Your task to perform on an android device: Clear the shopping cart on walmart. Add "energizer triple a" to the cart on walmart Image 0: 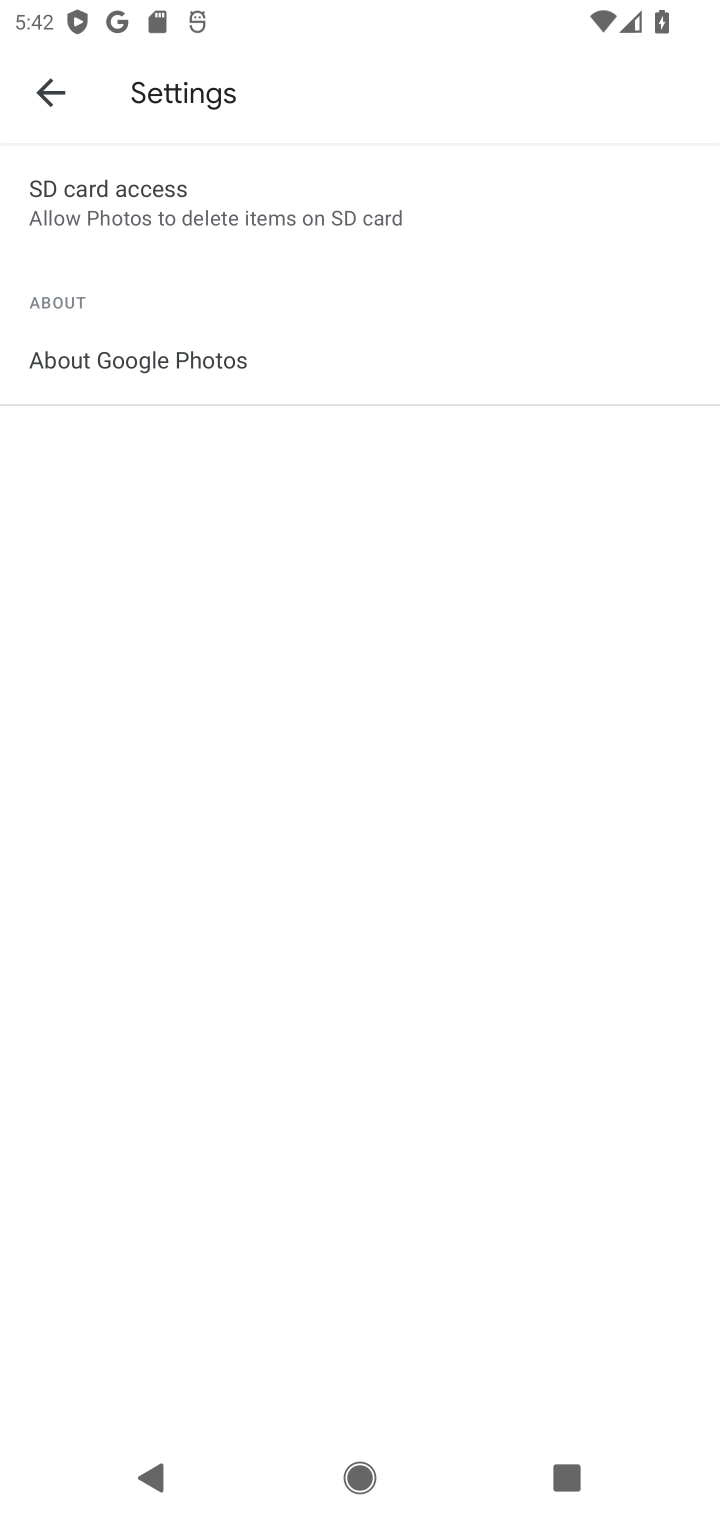
Step 0: press home button
Your task to perform on an android device: Clear the shopping cart on walmart. Add "energizer triple a" to the cart on walmart Image 1: 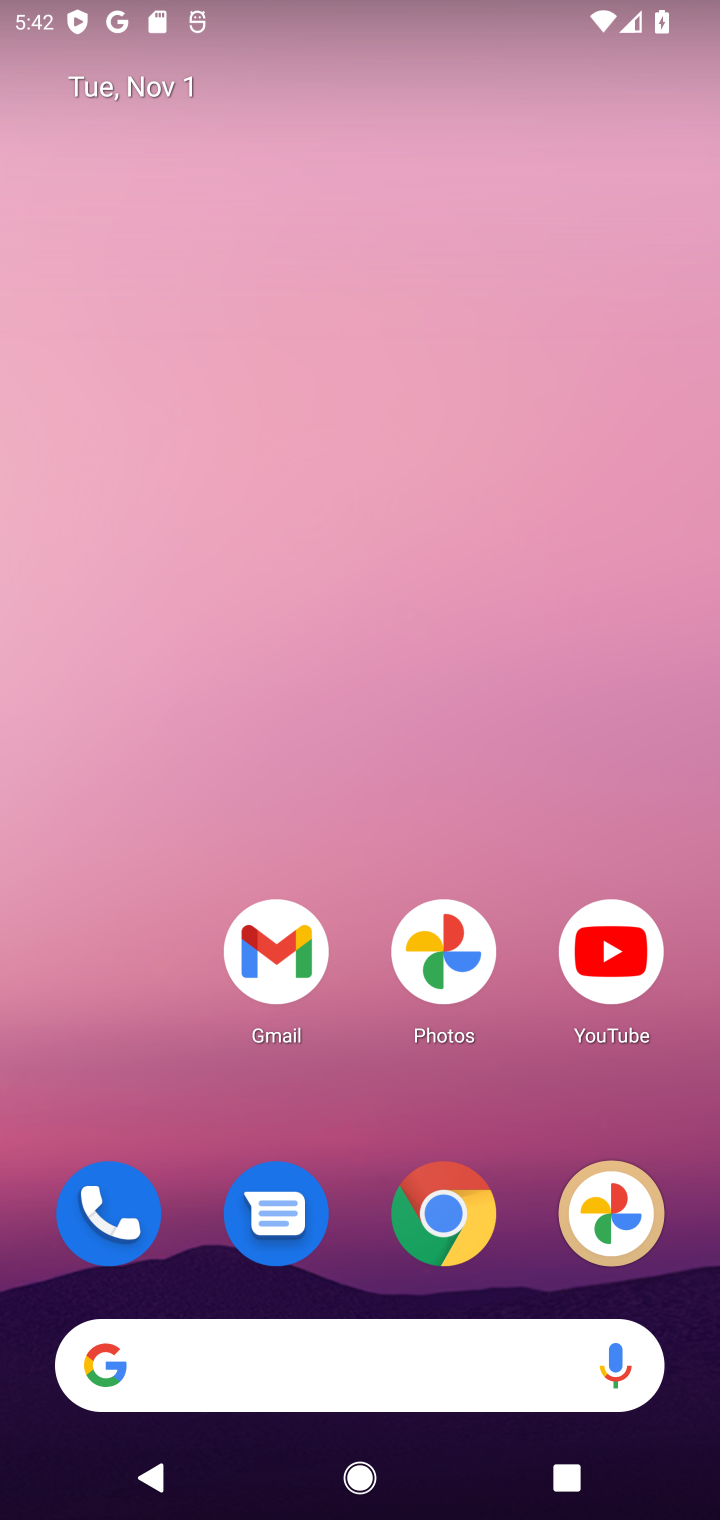
Step 1: click (431, 1204)
Your task to perform on an android device: Clear the shopping cart on walmart. Add "energizer triple a" to the cart on walmart Image 2: 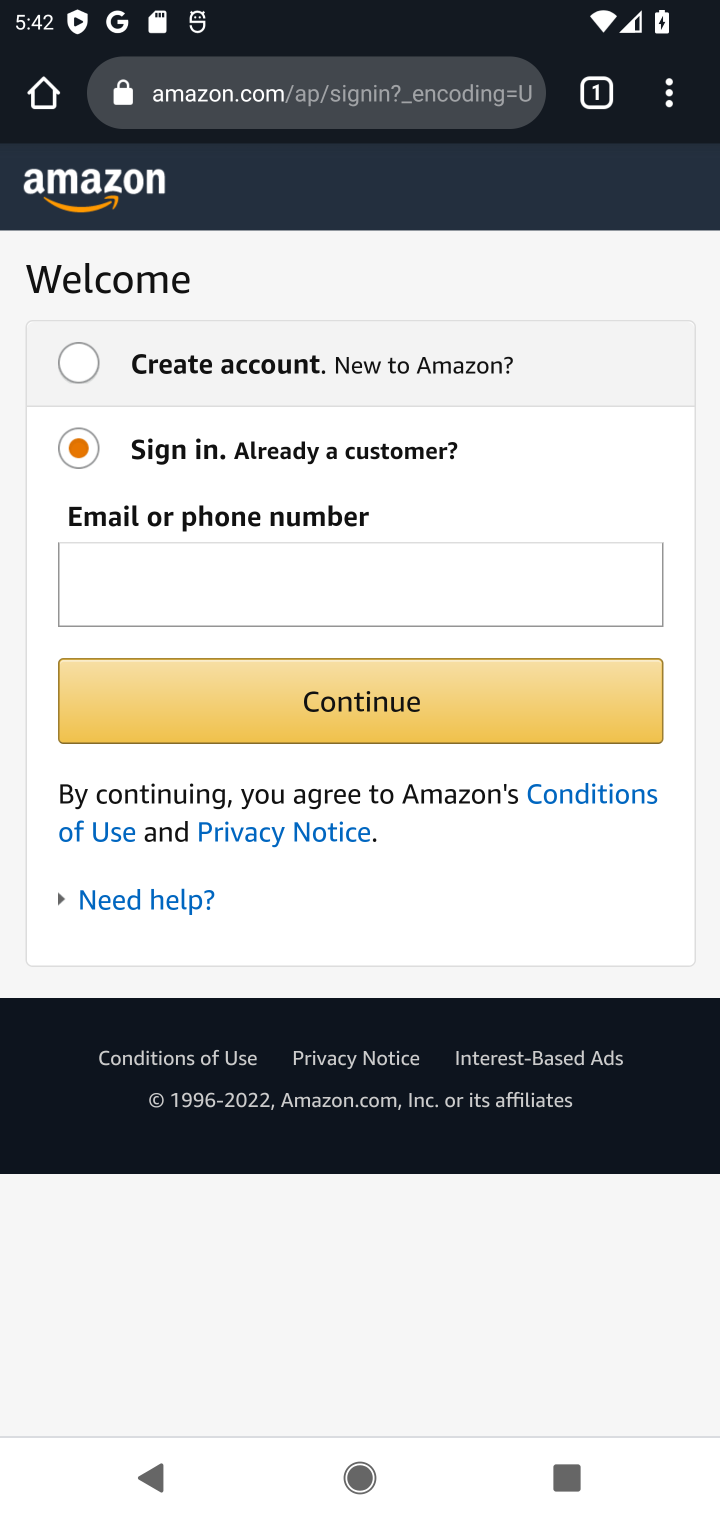
Step 2: click (242, 108)
Your task to perform on an android device: Clear the shopping cart on walmart. Add "energizer triple a" to the cart on walmart Image 3: 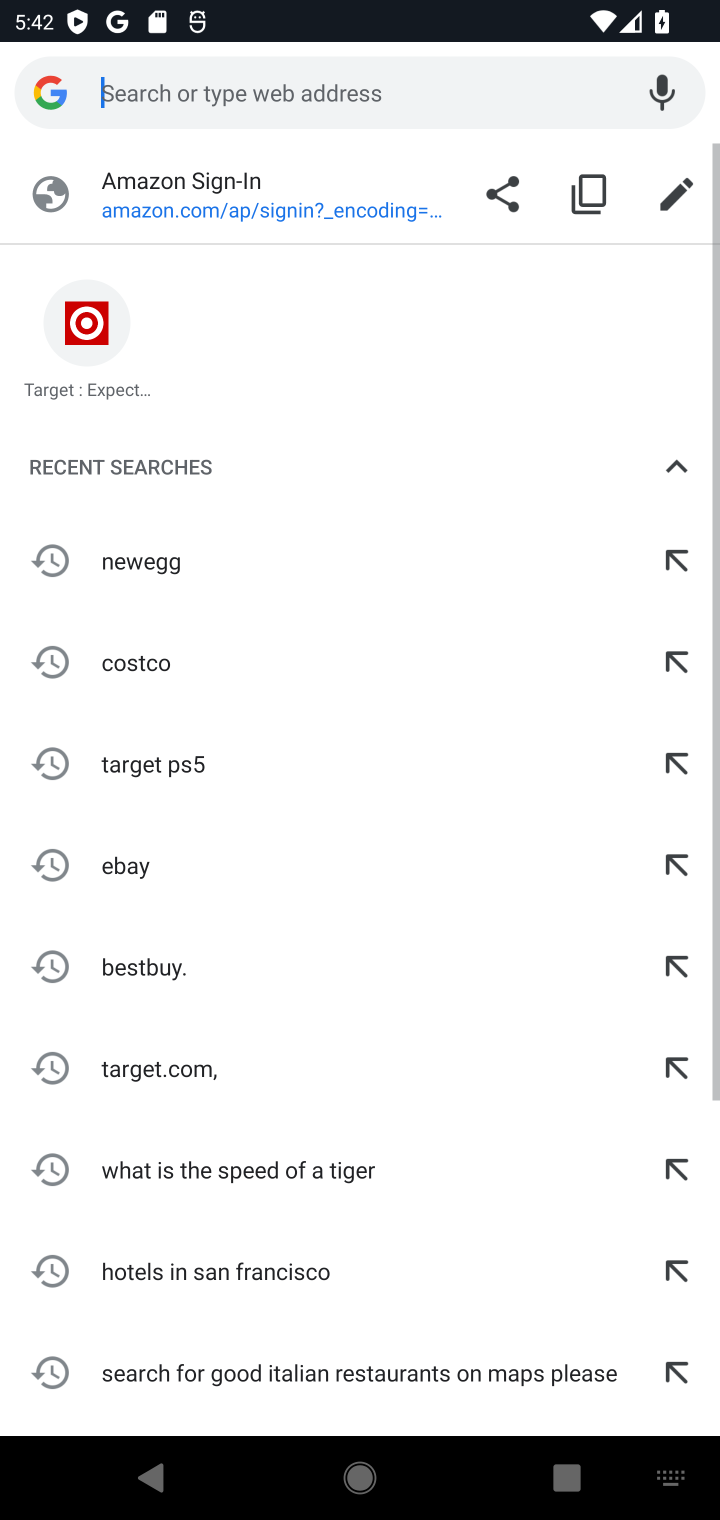
Step 3: type "walmart"
Your task to perform on an android device: Clear the shopping cart on walmart. Add "energizer triple a" to the cart on walmart Image 4: 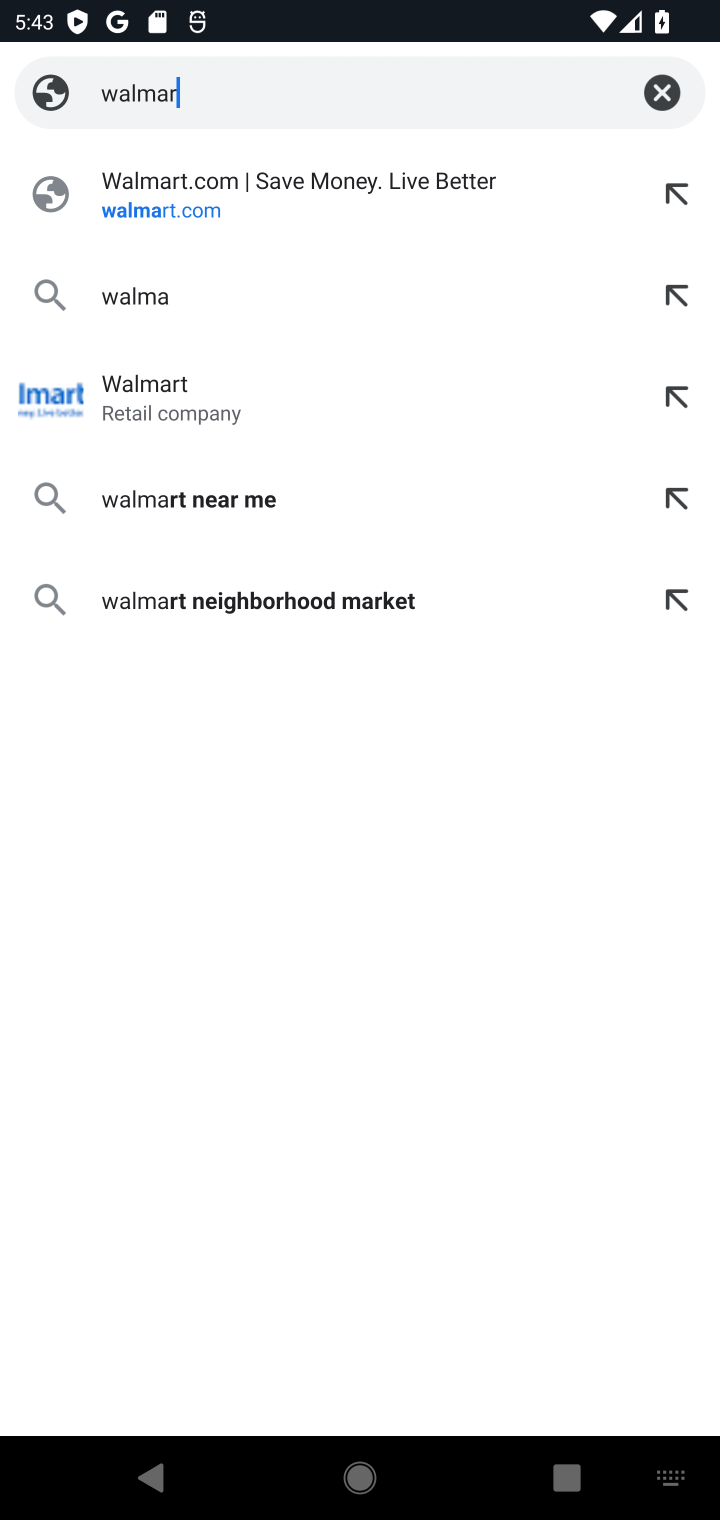
Step 4: type ""
Your task to perform on an android device: Clear the shopping cart on walmart. Add "energizer triple a" to the cart on walmart Image 5: 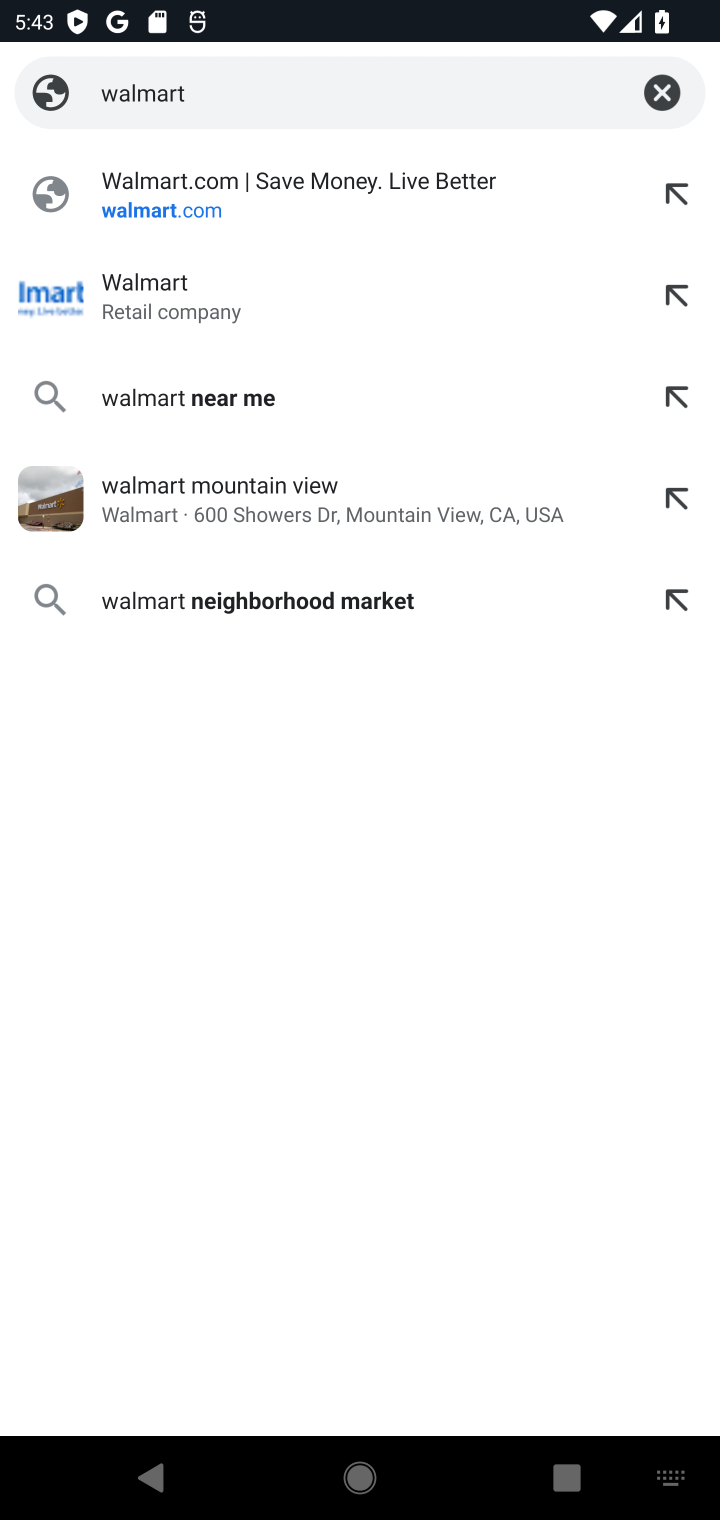
Step 5: click (288, 192)
Your task to perform on an android device: Clear the shopping cart on walmart. Add "energizer triple a" to the cart on walmart Image 6: 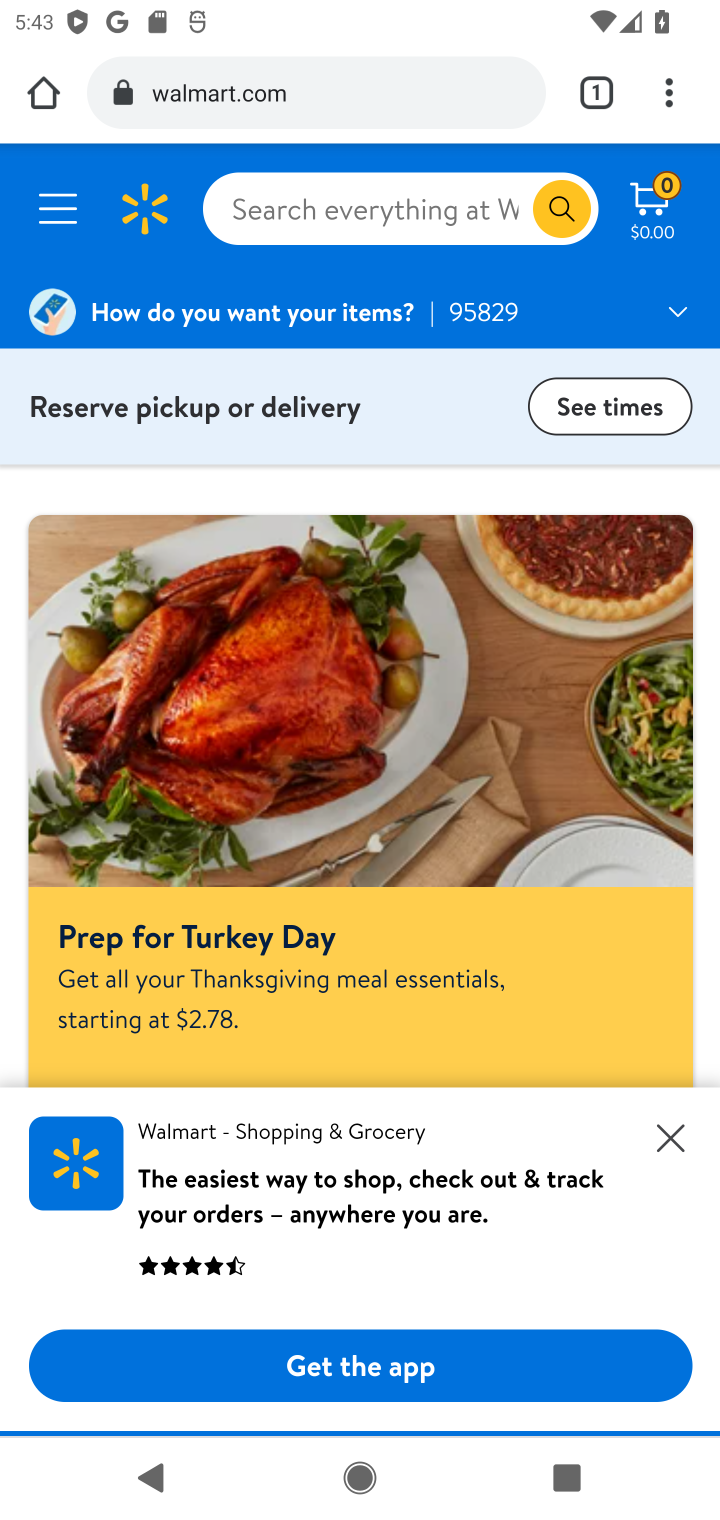
Step 6: click (358, 208)
Your task to perform on an android device: Clear the shopping cart on walmart. Add "energizer triple a" to the cart on walmart Image 7: 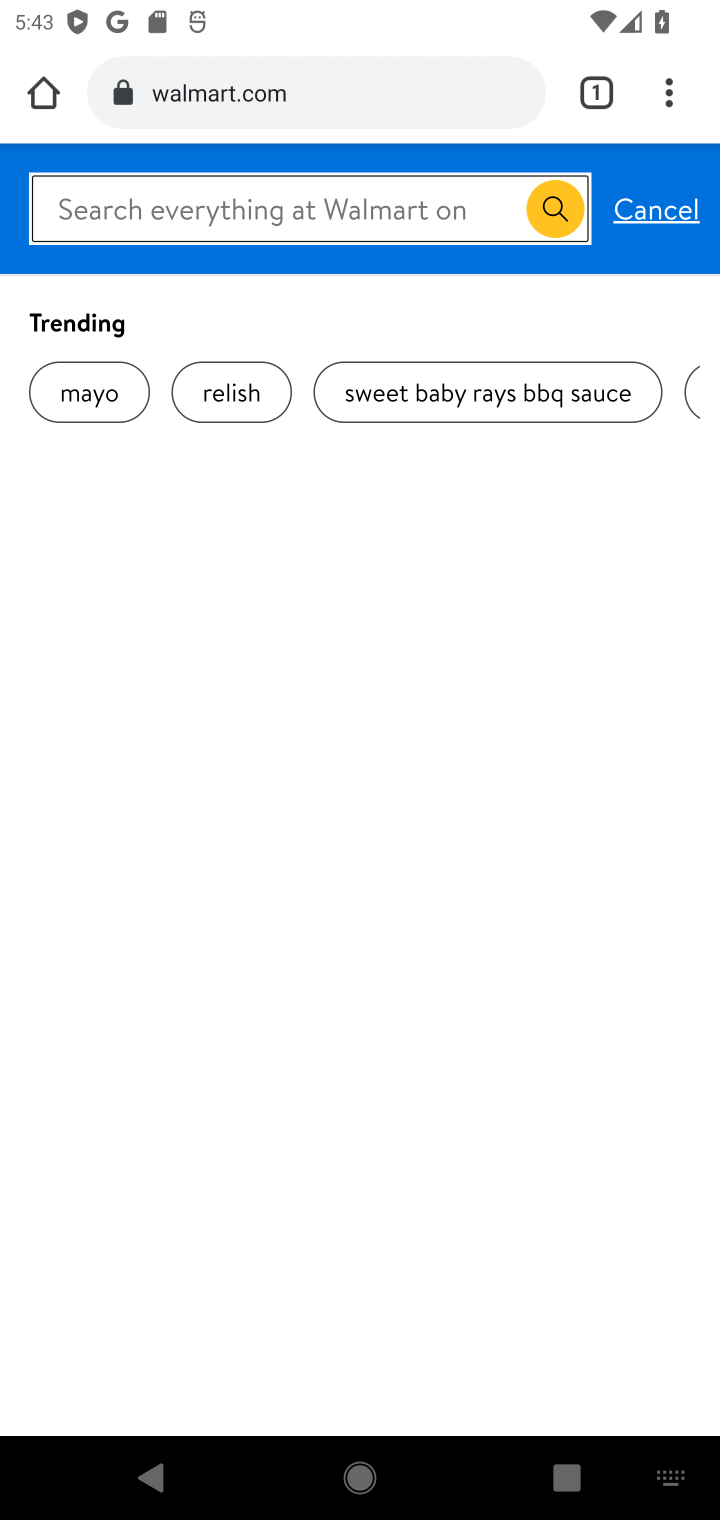
Step 7: type "energizer triple a"
Your task to perform on an android device: Clear the shopping cart on walmart. Add "energizer triple a" to the cart on walmart Image 8: 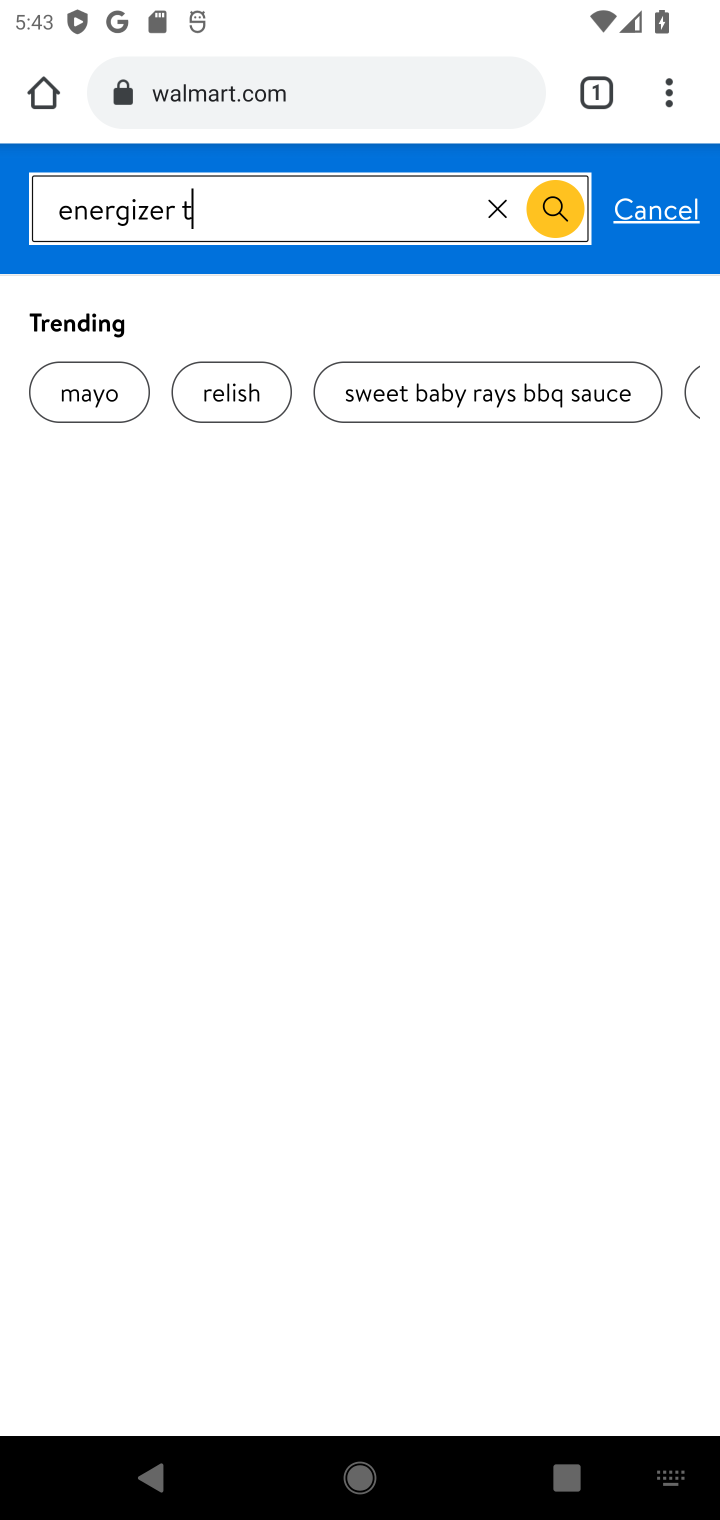
Step 8: type ""
Your task to perform on an android device: Clear the shopping cart on walmart. Add "energizer triple a" to the cart on walmart Image 9: 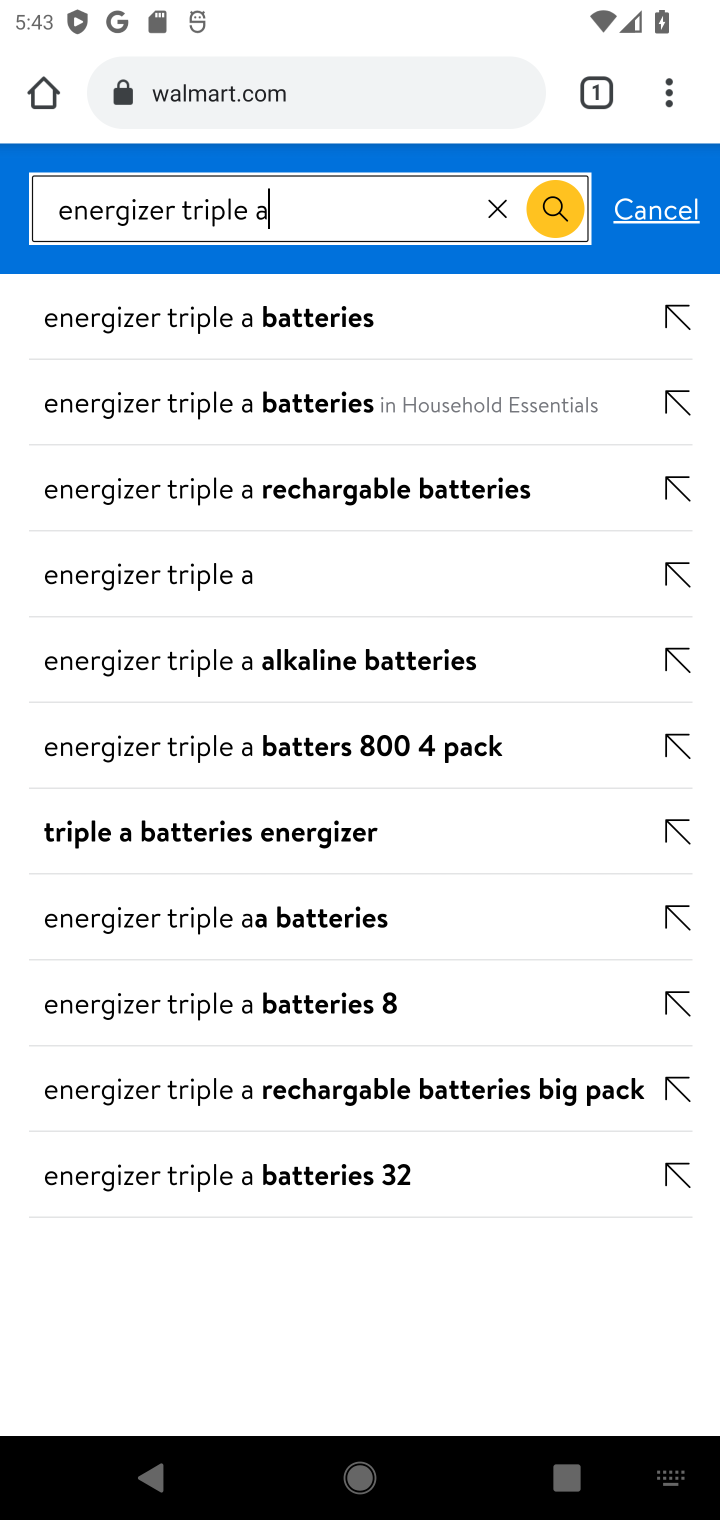
Step 9: click (233, 290)
Your task to perform on an android device: Clear the shopping cart on walmart. Add "energizer triple a" to the cart on walmart Image 10: 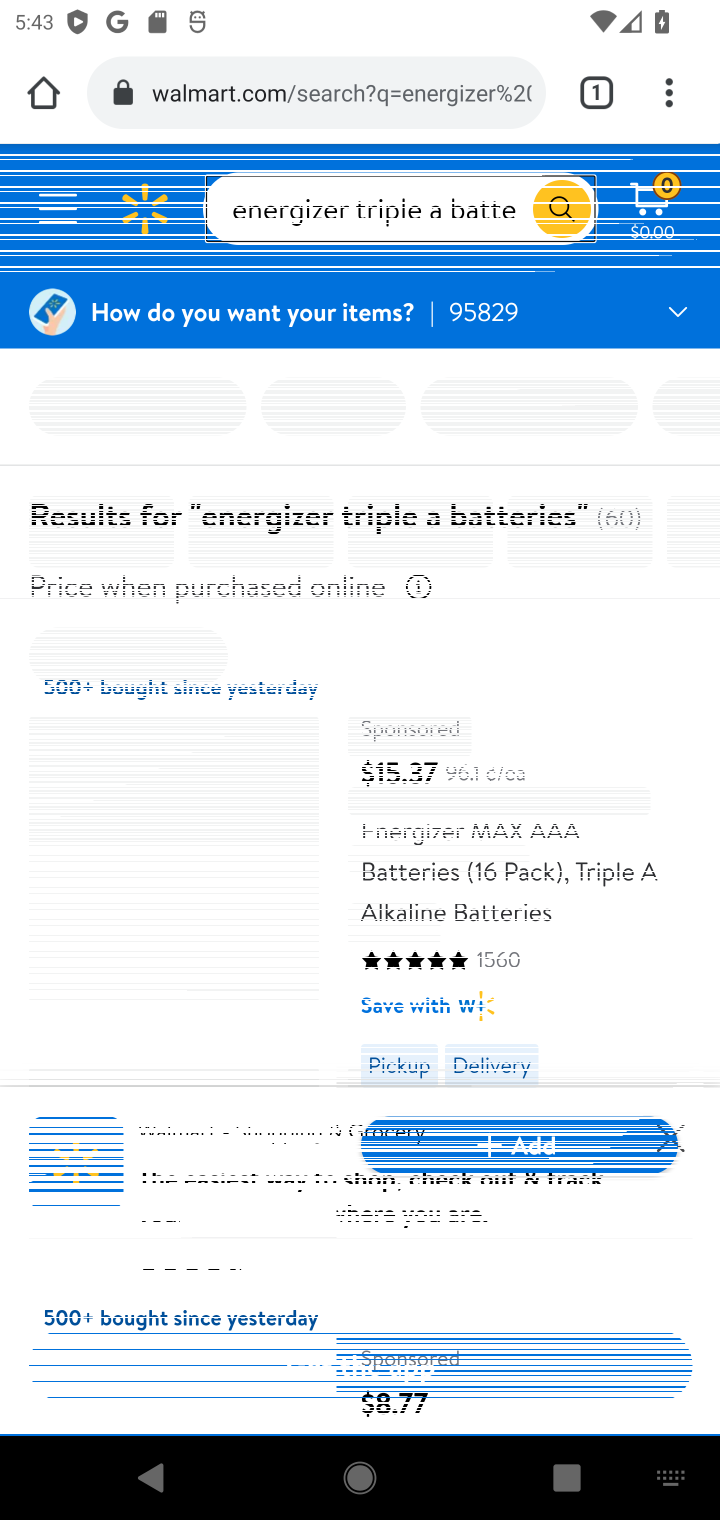
Step 10: click (666, 1148)
Your task to perform on an android device: Clear the shopping cart on walmart. Add "energizer triple a" to the cart on walmart Image 11: 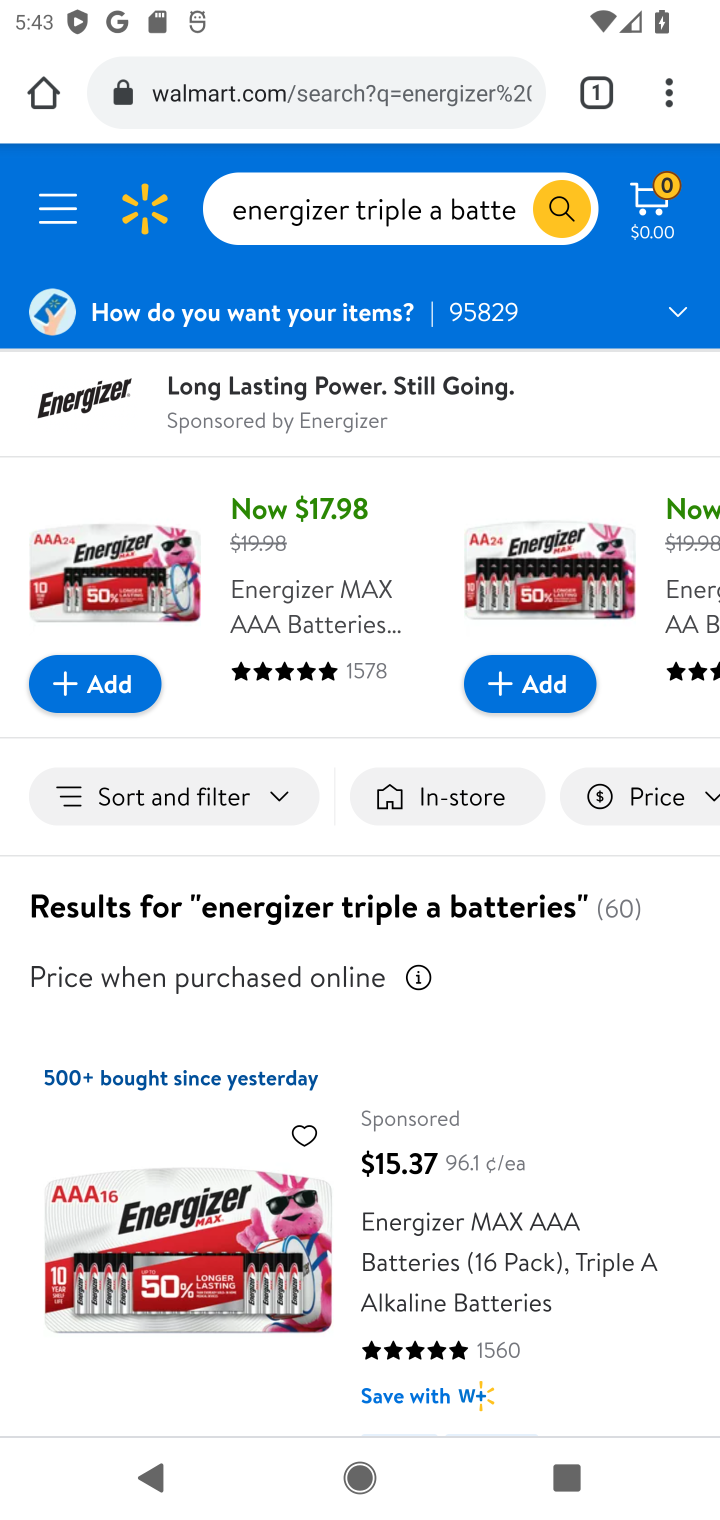
Step 11: drag from (453, 978) to (421, 689)
Your task to perform on an android device: Clear the shopping cart on walmart. Add "energizer triple a" to the cart on walmart Image 12: 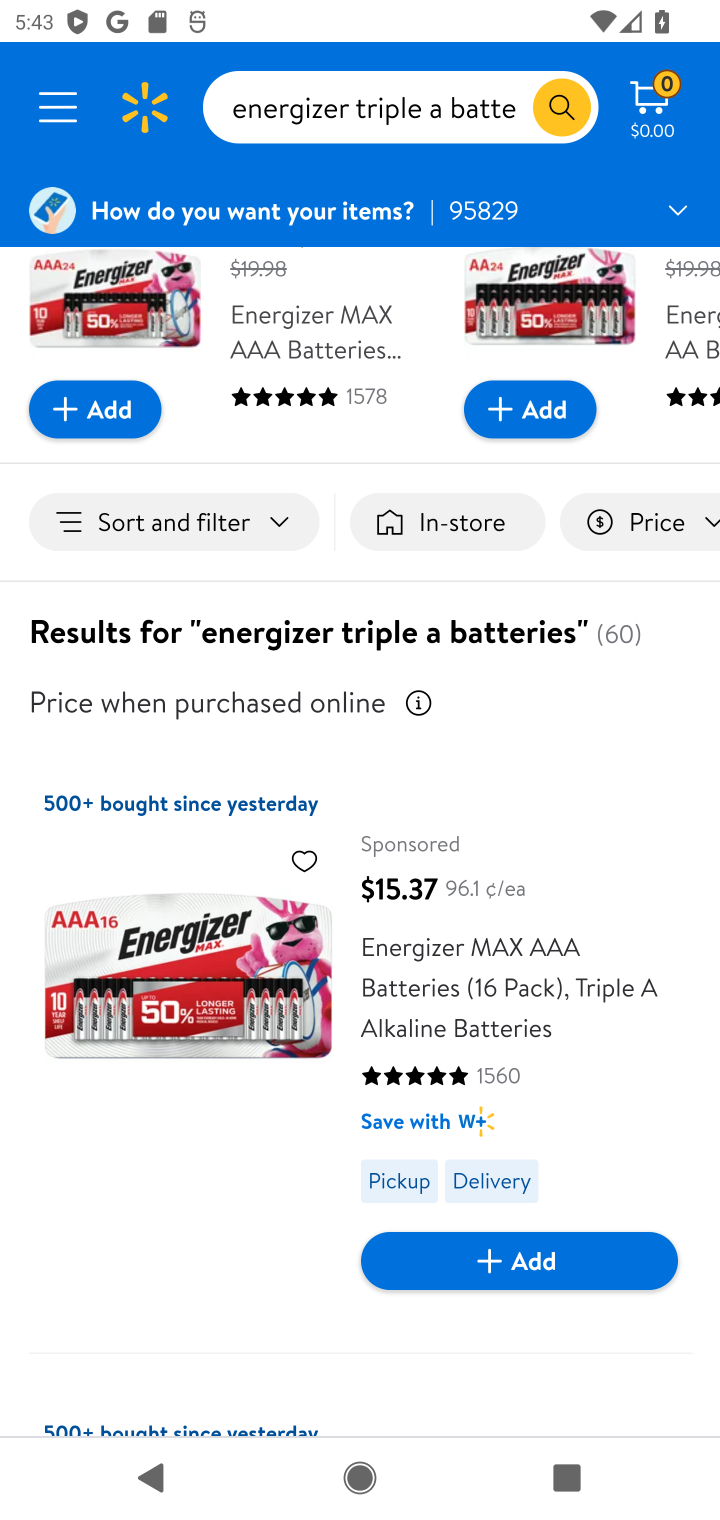
Step 12: click (469, 1242)
Your task to perform on an android device: Clear the shopping cart on walmart. Add "energizer triple a" to the cart on walmart Image 13: 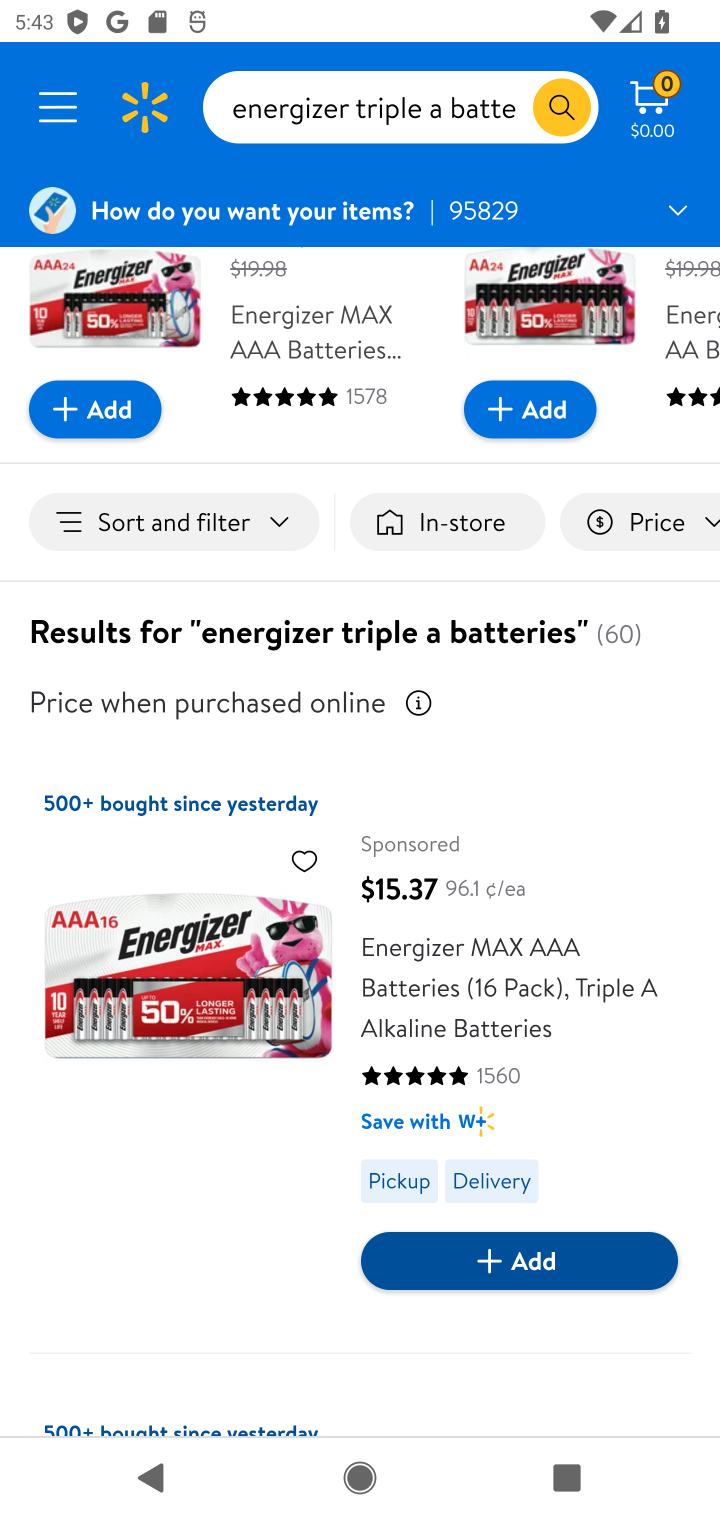
Step 13: click (473, 1266)
Your task to perform on an android device: Clear the shopping cart on walmart. Add "energizer triple a" to the cart on walmart Image 14: 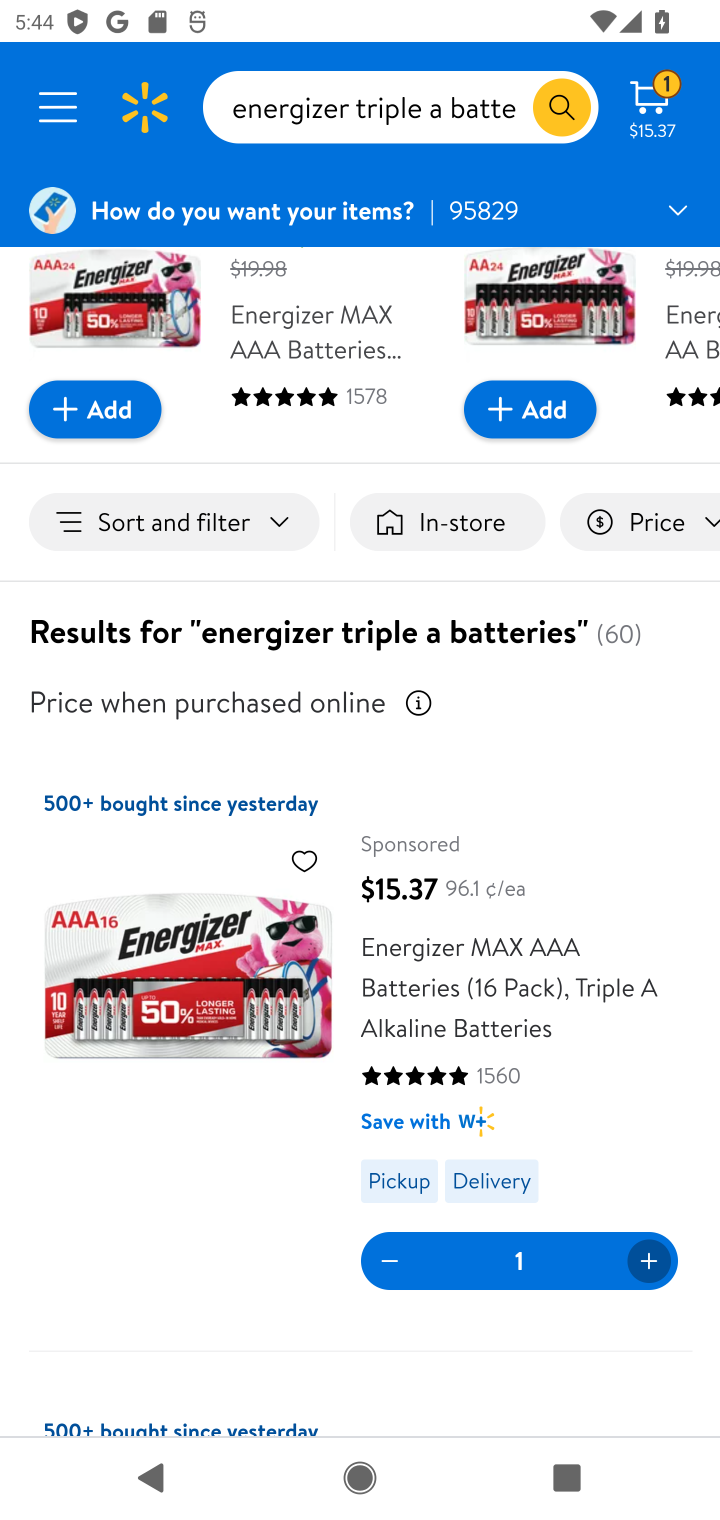
Step 14: click (671, 107)
Your task to perform on an android device: Clear the shopping cart on walmart. Add "energizer triple a" to the cart on walmart Image 15: 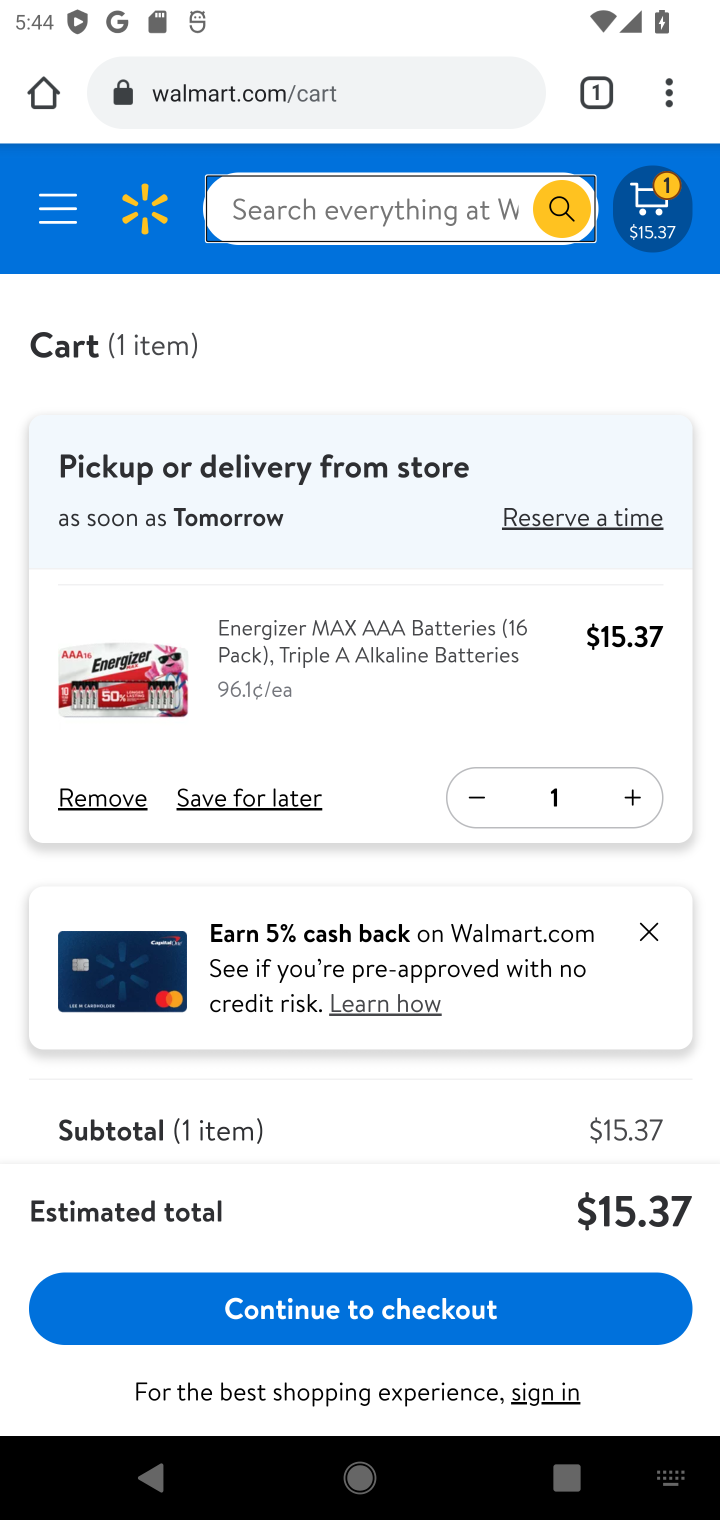
Step 15: drag from (494, 917) to (539, 469)
Your task to perform on an android device: Clear the shopping cart on walmart. Add "energizer triple a" to the cart on walmart Image 16: 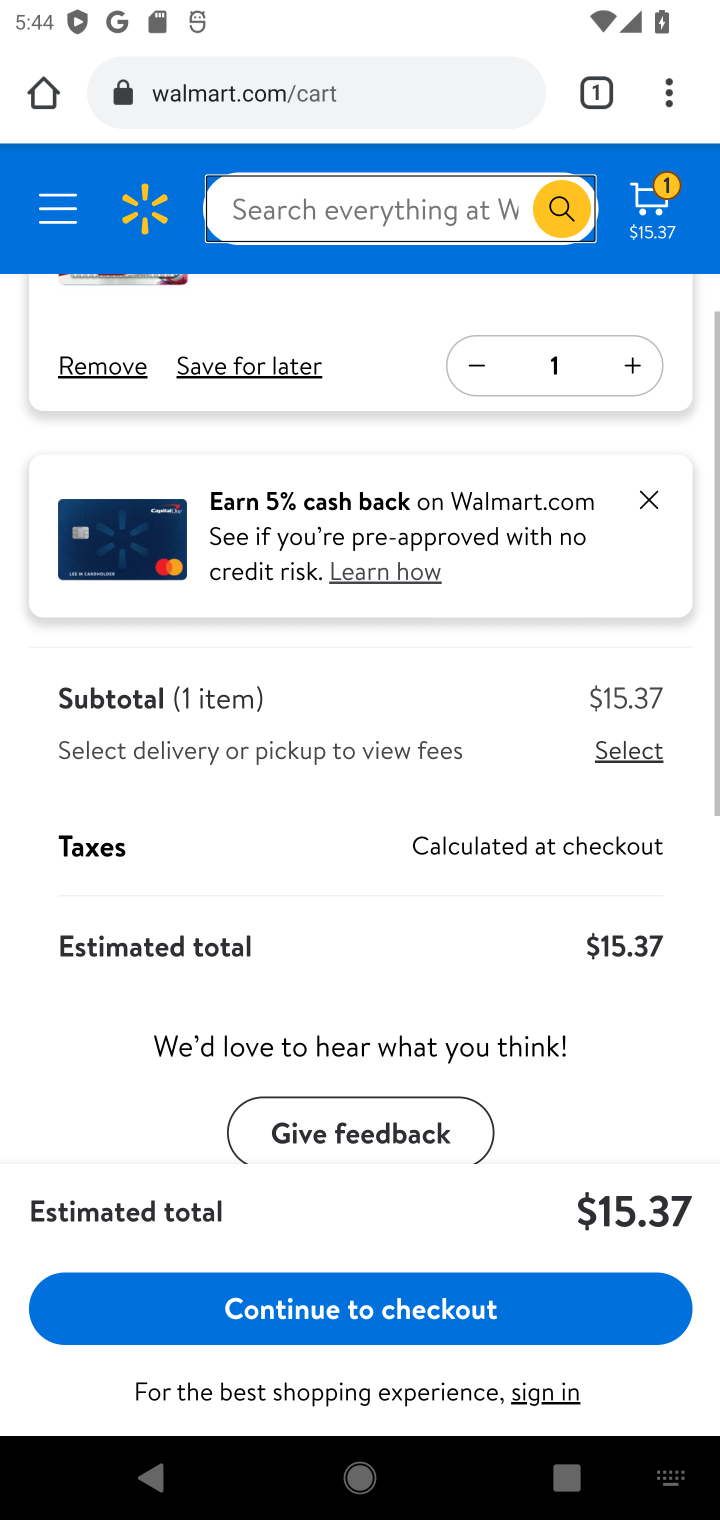
Step 16: click (427, 1324)
Your task to perform on an android device: Clear the shopping cart on walmart. Add "energizer triple a" to the cart on walmart Image 17: 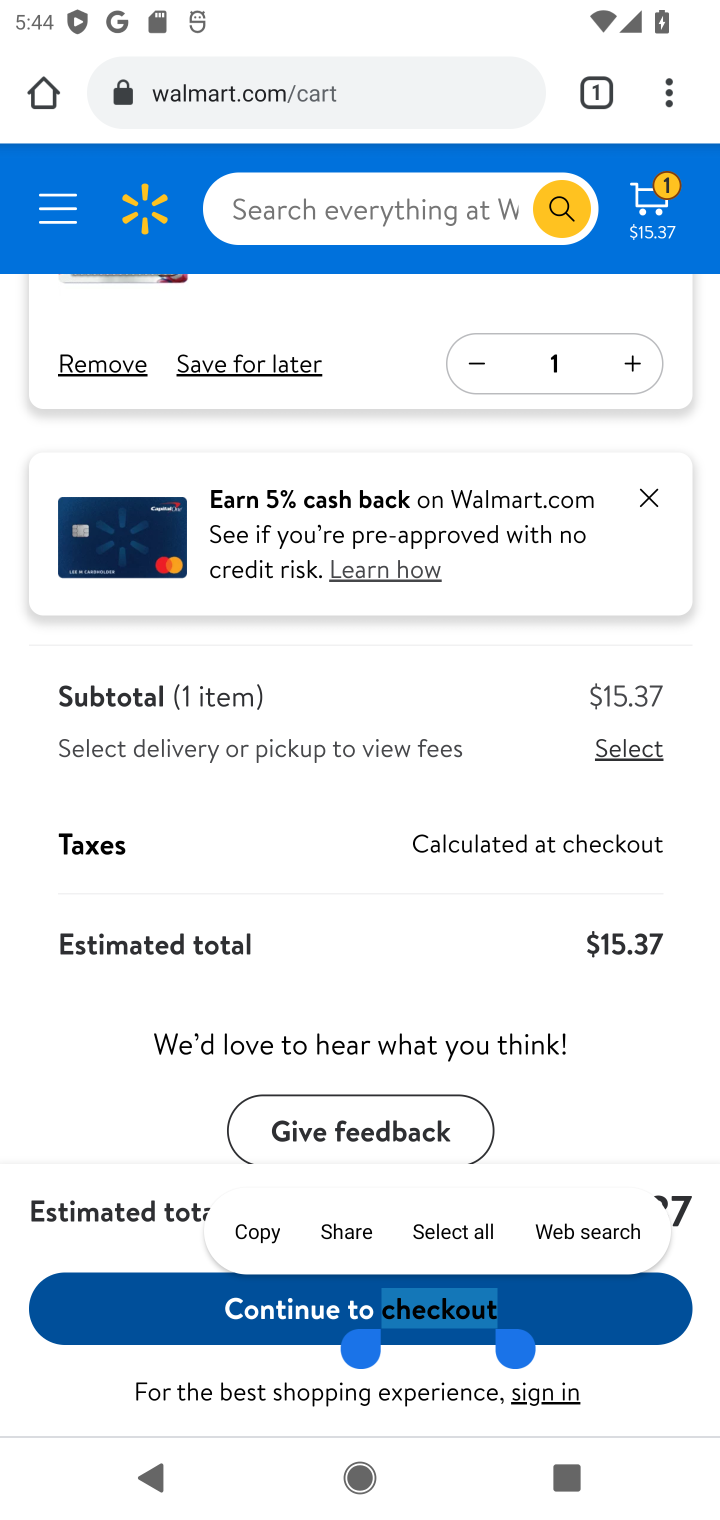
Step 17: drag from (444, 1142) to (475, 561)
Your task to perform on an android device: Clear the shopping cart on walmart. Add "energizer triple a" to the cart on walmart Image 18: 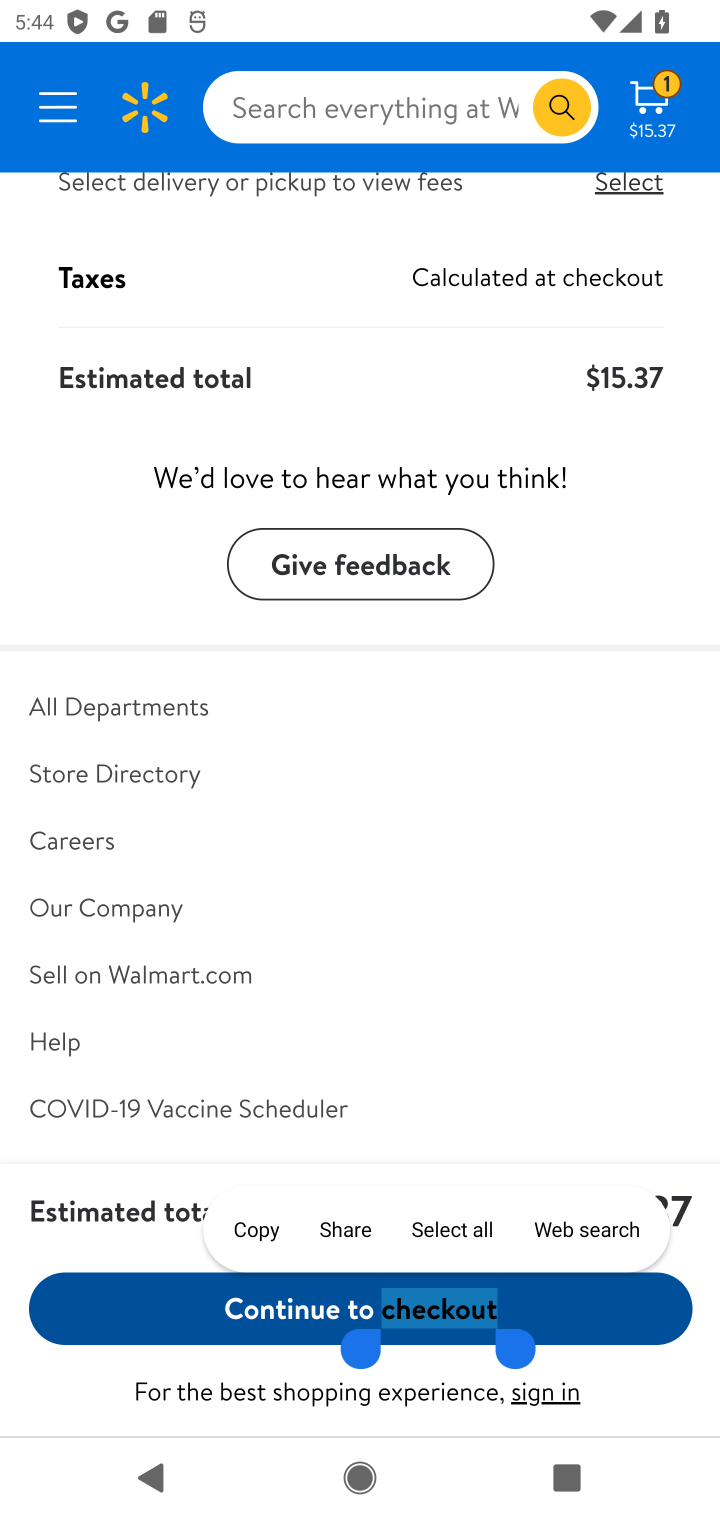
Step 18: click (294, 1211)
Your task to perform on an android device: Clear the shopping cart on walmart. Add "energizer triple a" to the cart on walmart Image 19: 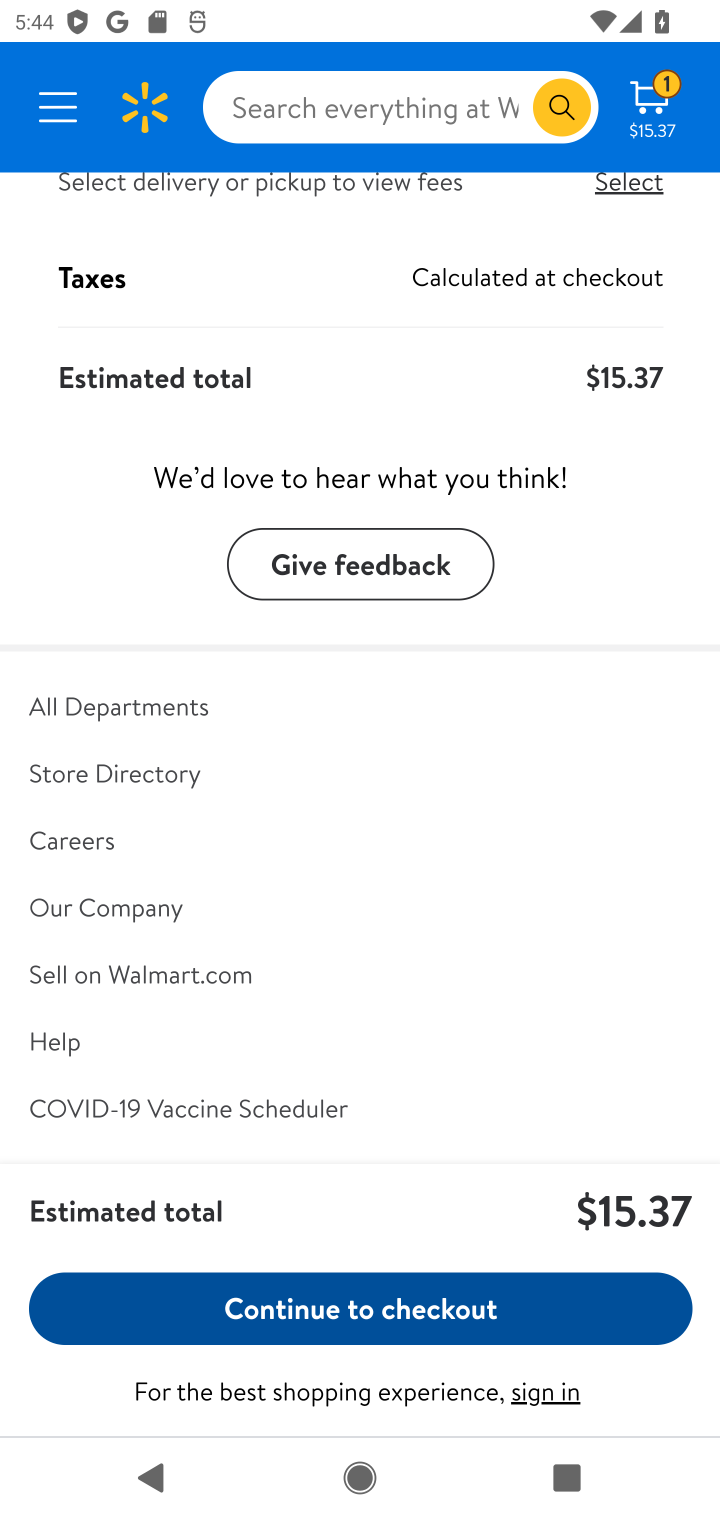
Step 19: click (334, 1302)
Your task to perform on an android device: Clear the shopping cart on walmart. Add "energizer triple a" to the cart on walmart Image 20: 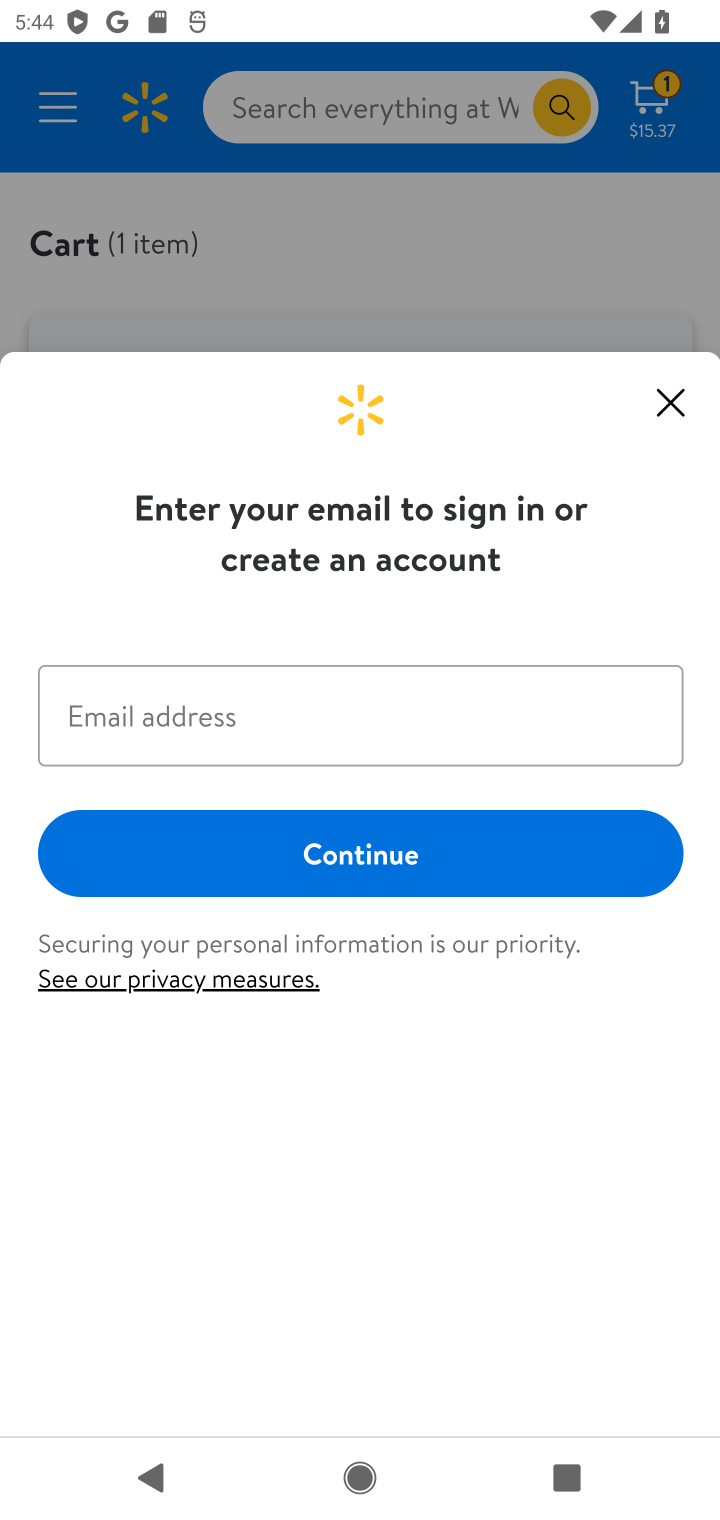
Step 20: click (654, 389)
Your task to perform on an android device: Clear the shopping cart on walmart. Add "energizer triple a" to the cart on walmart Image 21: 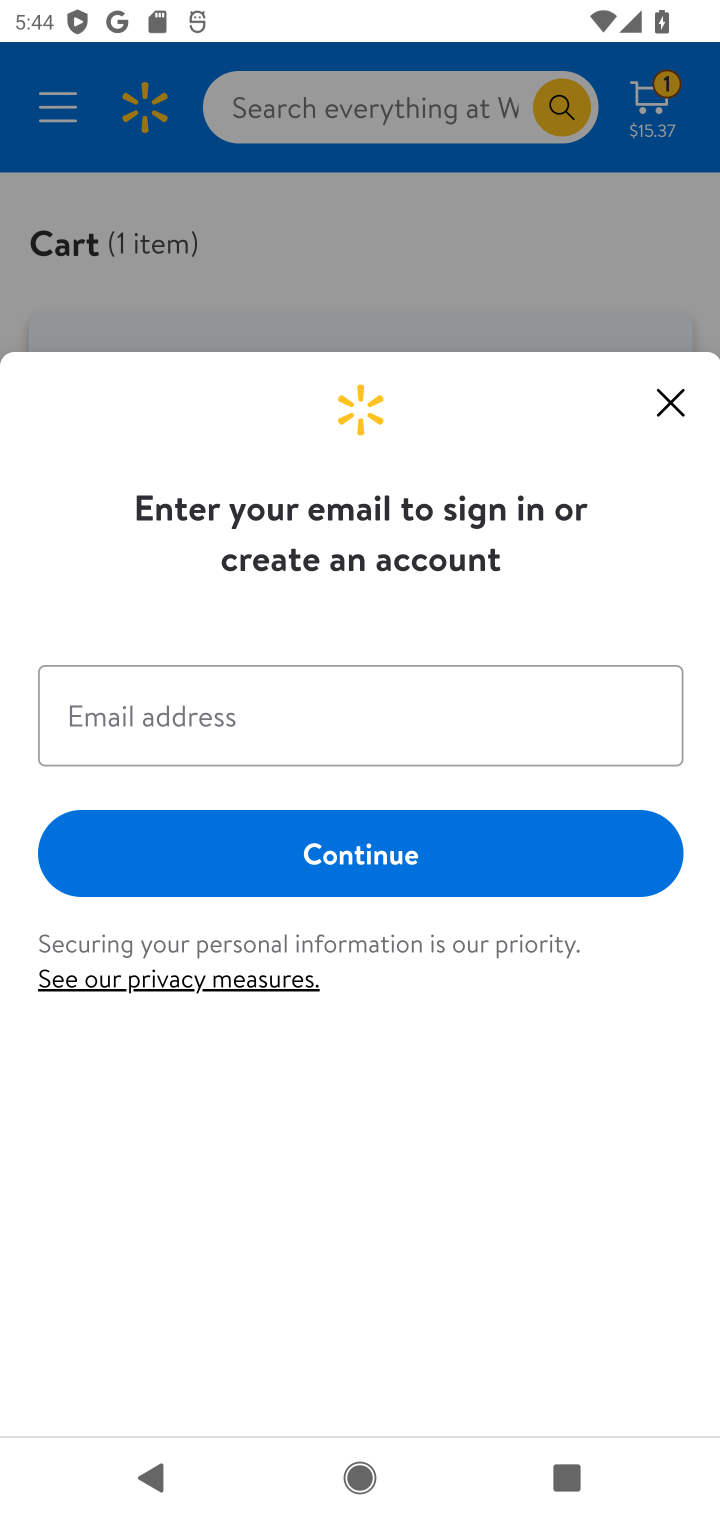
Step 21: task complete